Your task to perform on an android device: Go to battery settings Image 0: 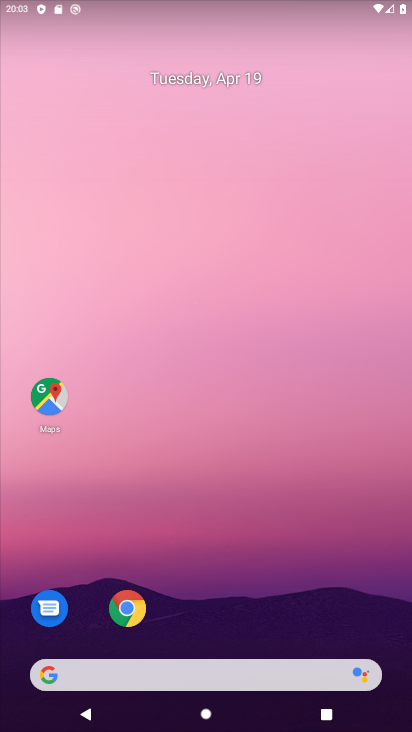
Step 0: drag from (212, 627) to (208, 13)
Your task to perform on an android device: Go to battery settings Image 1: 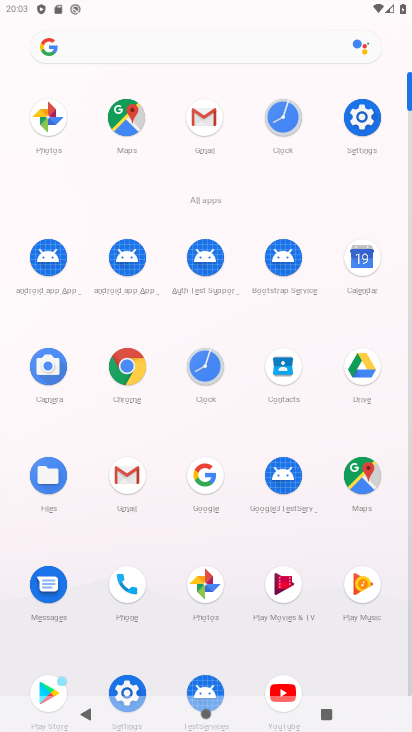
Step 1: click (362, 114)
Your task to perform on an android device: Go to battery settings Image 2: 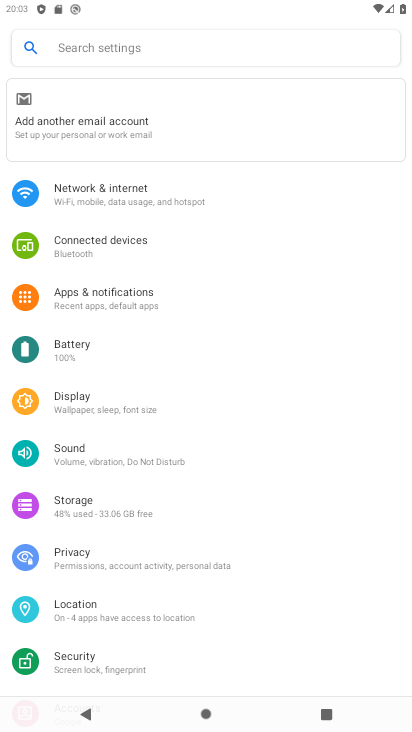
Step 2: click (77, 351)
Your task to perform on an android device: Go to battery settings Image 3: 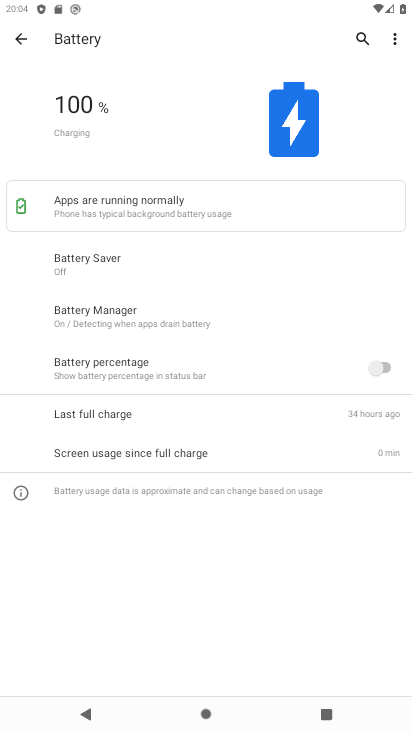
Step 3: task complete